Your task to perform on an android device: toggle data saver in the chrome app Image 0: 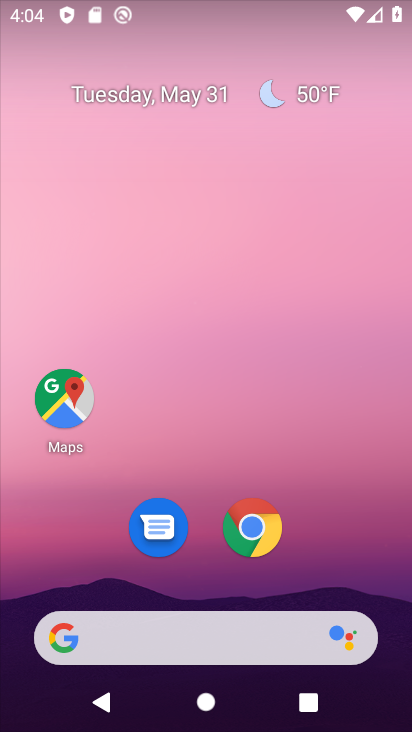
Step 0: click (266, 540)
Your task to perform on an android device: toggle data saver in the chrome app Image 1: 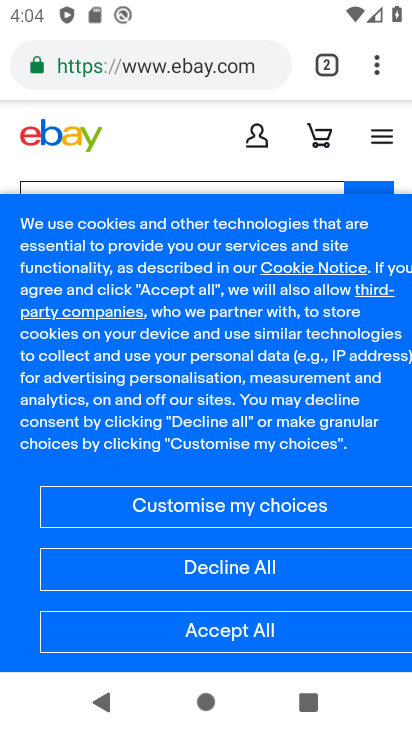
Step 1: click (378, 81)
Your task to perform on an android device: toggle data saver in the chrome app Image 2: 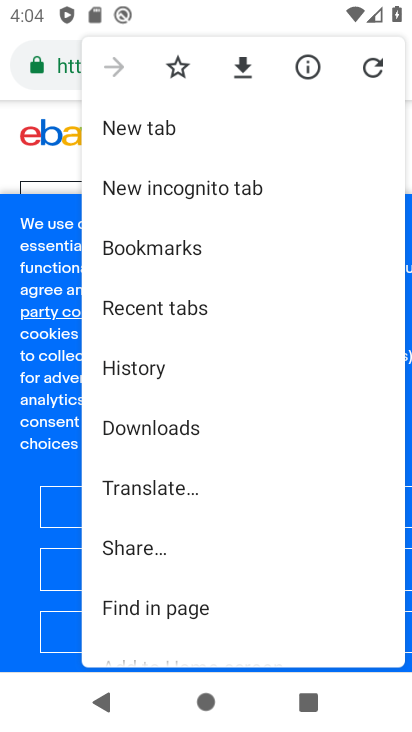
Step 2: drag from (213, 613) to (173, 271)
Your task to perform on an android device: toggle data saver in the chrome app Image 3: 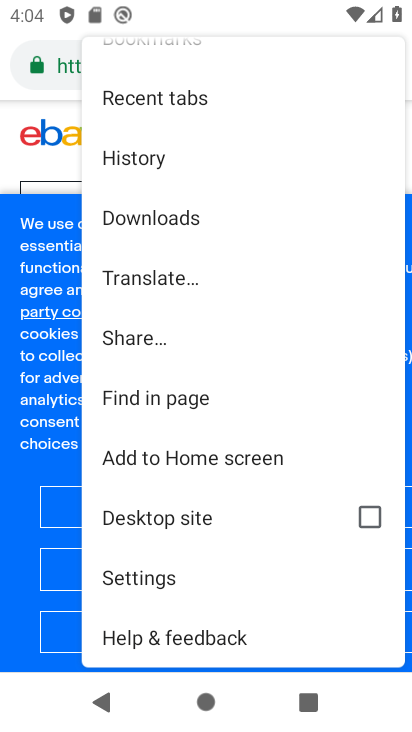
Step 3: click (197, 591)
Your task to perform on an android device: toggle data saver in the chrome app Image 4: 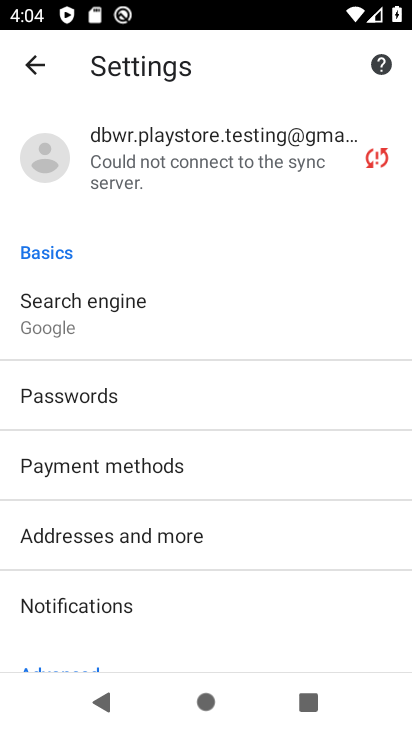
Step 4: drag from (174, 637) to (142, 306)
Your task to perform on an android device: toggle data saver in the chrome app Image 5: 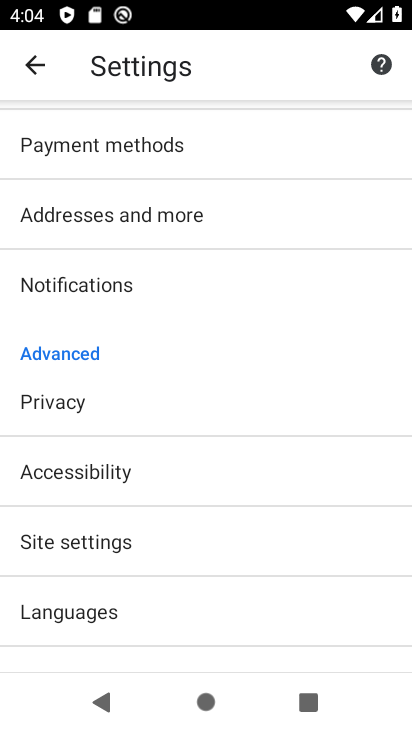
Step 5: drag from (158, 579) to (144, 343)
Your task to perform on an android device: toggle data saver in the chrome app Image 6: 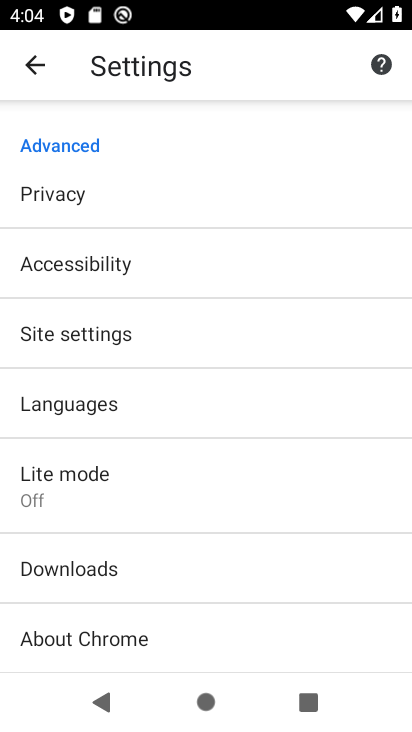
Step 6: click (149, 454)
Your task to perform on an android device: toggle data saver in the chrome app Image 7: 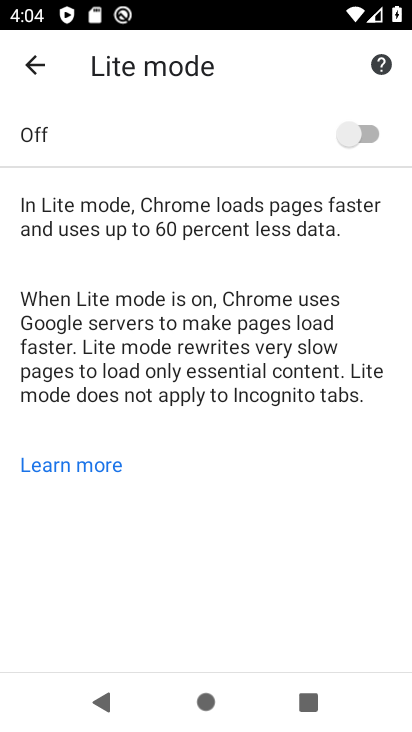
Step 7: click (360, 135)
Your task to perform on an android device: toggle data saver in the chrome app Image 8: 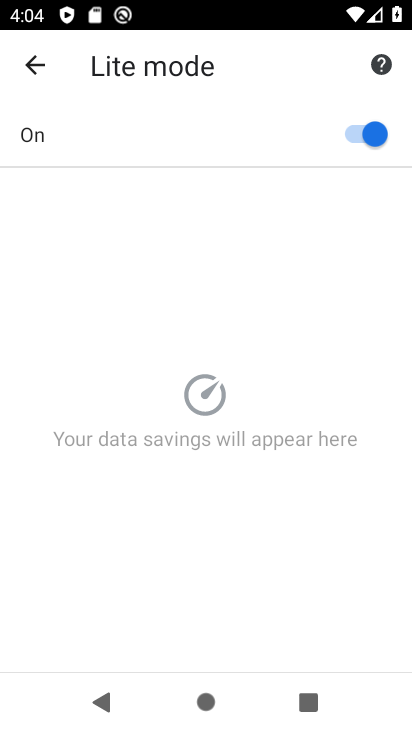
Step 8: task complete